Your task to perform on an android device: Open the map Image 0: 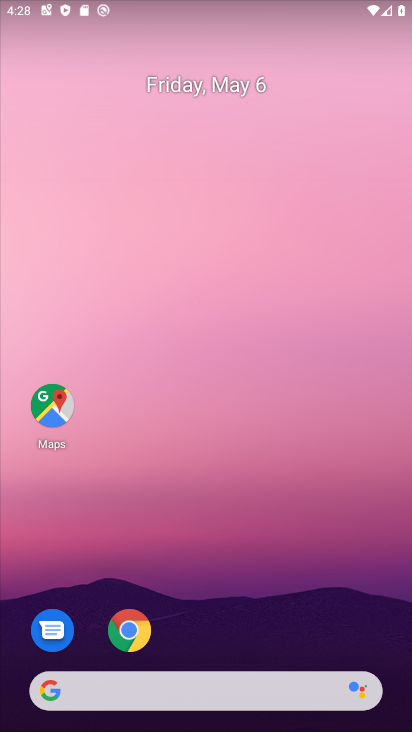
Step 0: drag from (283, 623) to (289, 57)
Your task to perform on an android device: Open the map Image 1: 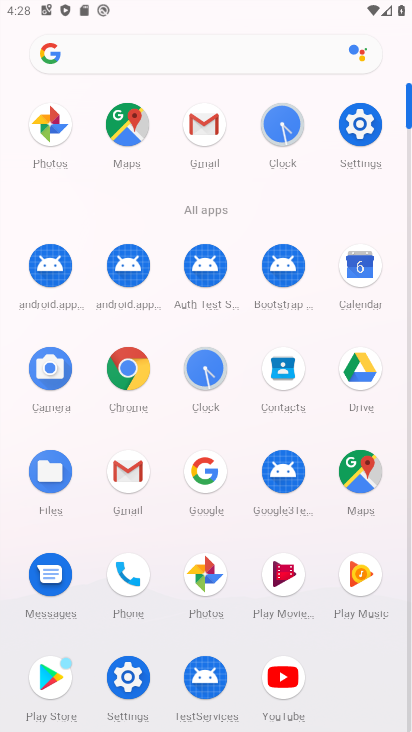
Step 1: click (362, 458)
Your task to perform on an android device: Open the map Image 2: 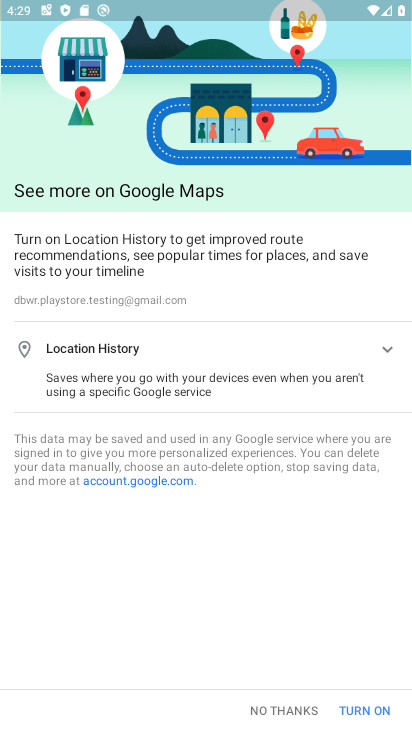
Step 2: click (347, 709)
Your task to perform on an android device: Open the map Image 3: 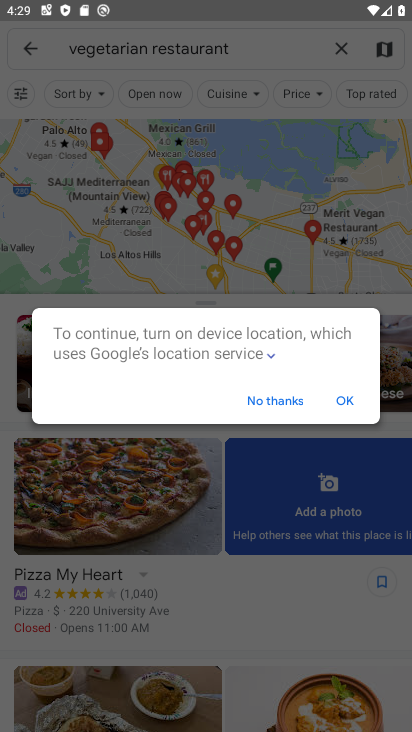
Step 3: click (352, 400)
Your task to perform on an android device: Open the map Image 4: 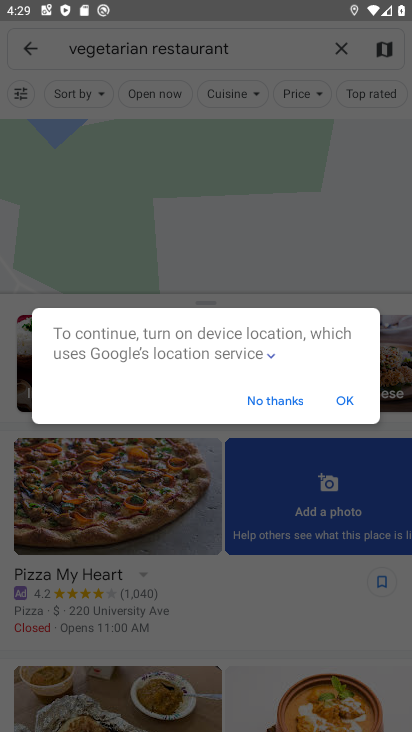
Step 4: click (343, 398)
Your task to perform on an android device: Open the map Image 5: 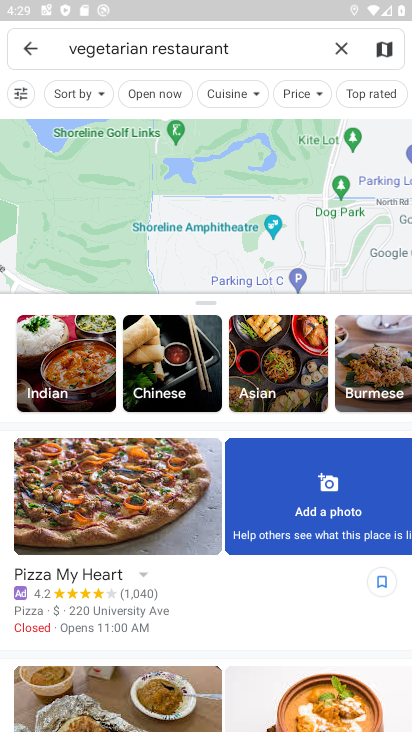
Step 5: click (25, 50)
Your task to perform on an android device: Open the map Image 6: 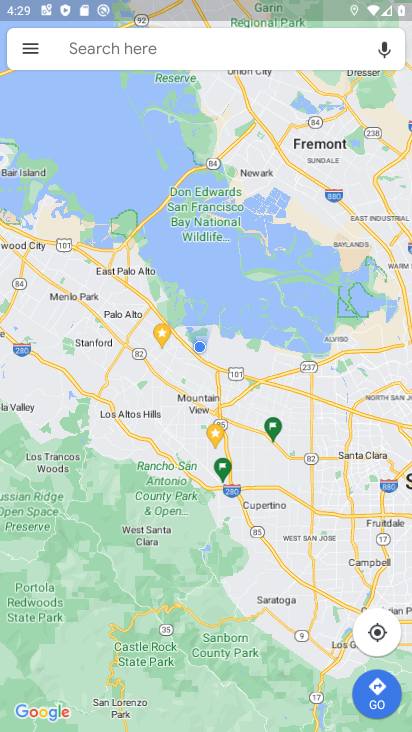
Step 6: task complete